Your task to perform on an android device: Check the news Image 0: 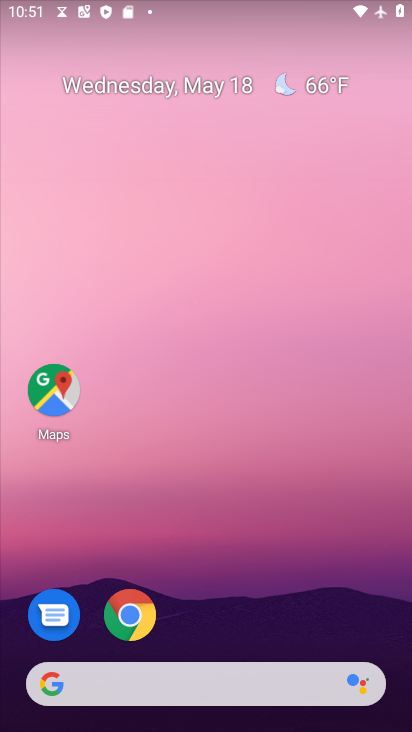
Step 0: drag from (327, 612) to (255, 33)
Your task to perform on an android device: Check the news Image 1: 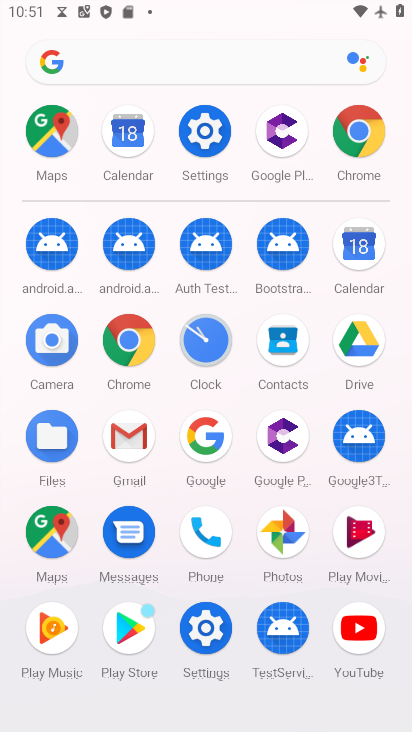
Step 1: drag from (3, 543) to (7, 248)
Your task to perform on an android device: Check the news Image 2: 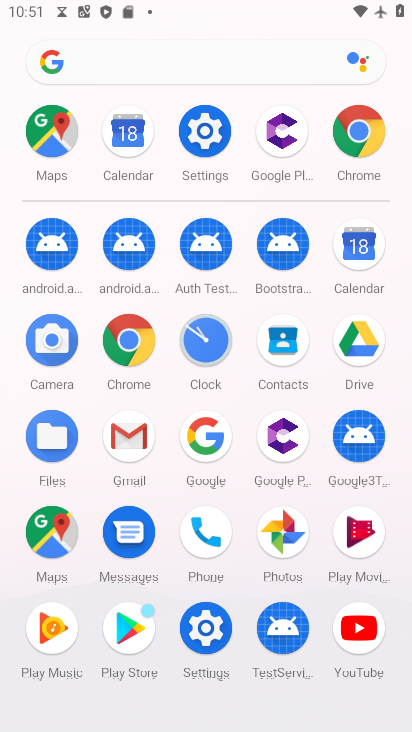
Step 2: click (121, 335)
Your task to perform on an android device: Check the news Image 3: 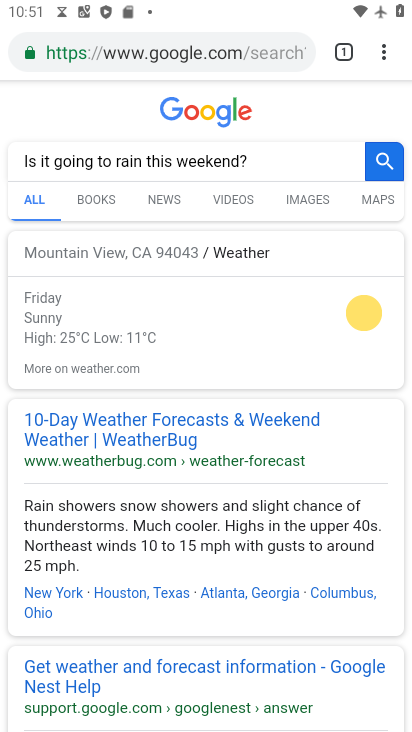
Step 3: click (220, 52)
Your task to perform on an android device: Check the news Image 4: 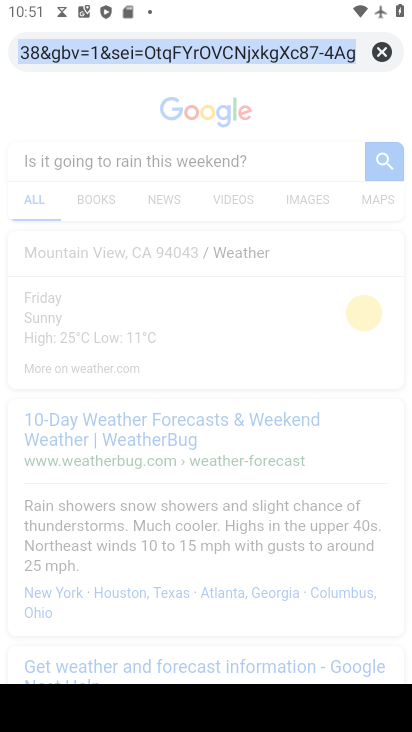
Step 4: click (380, 53)
Your task to perform on an android device: Check the news Image 5: 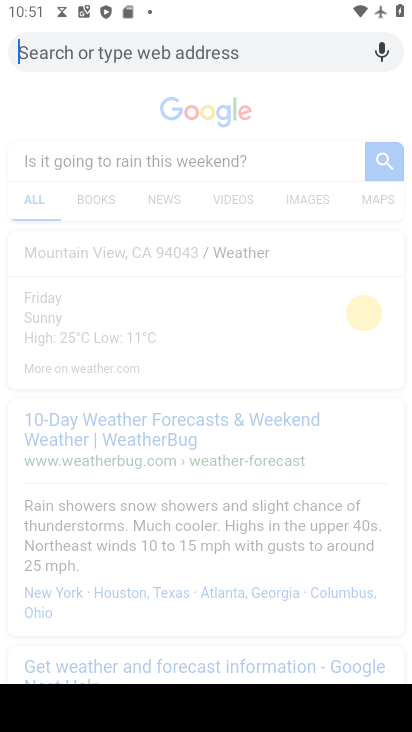
Step 5: type "Check the news"
Your task to perform on an android device: Check the news Image 6: 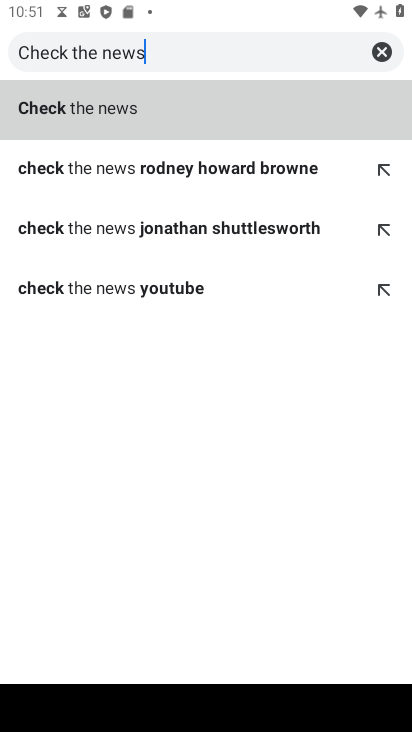
Step 6: click (171, 111)
Your task to perform on an android device: Check the news Image 7: 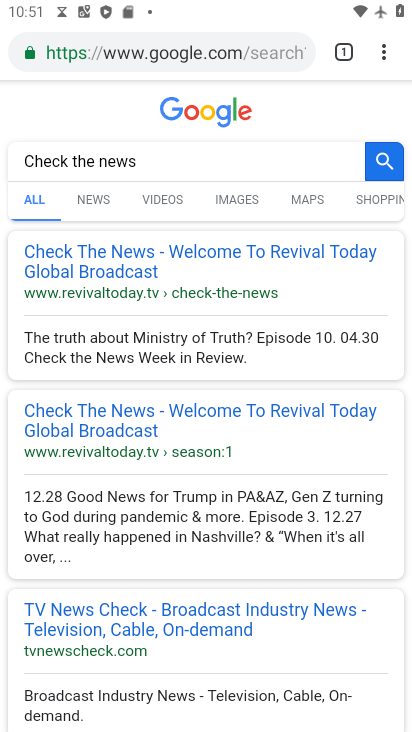
Step 7: click (90, 203)
Your task to perform on an android device: Check the news Image 8: 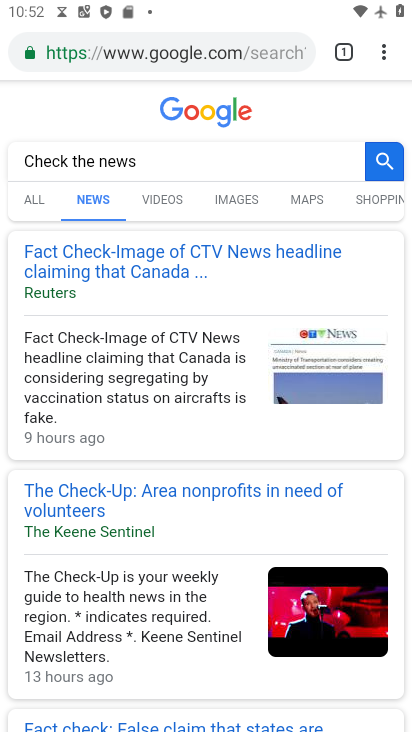
Step 8: task complete